Your task to perform on an android device: open app "Pandora - Music & Podcasts" Image 0: 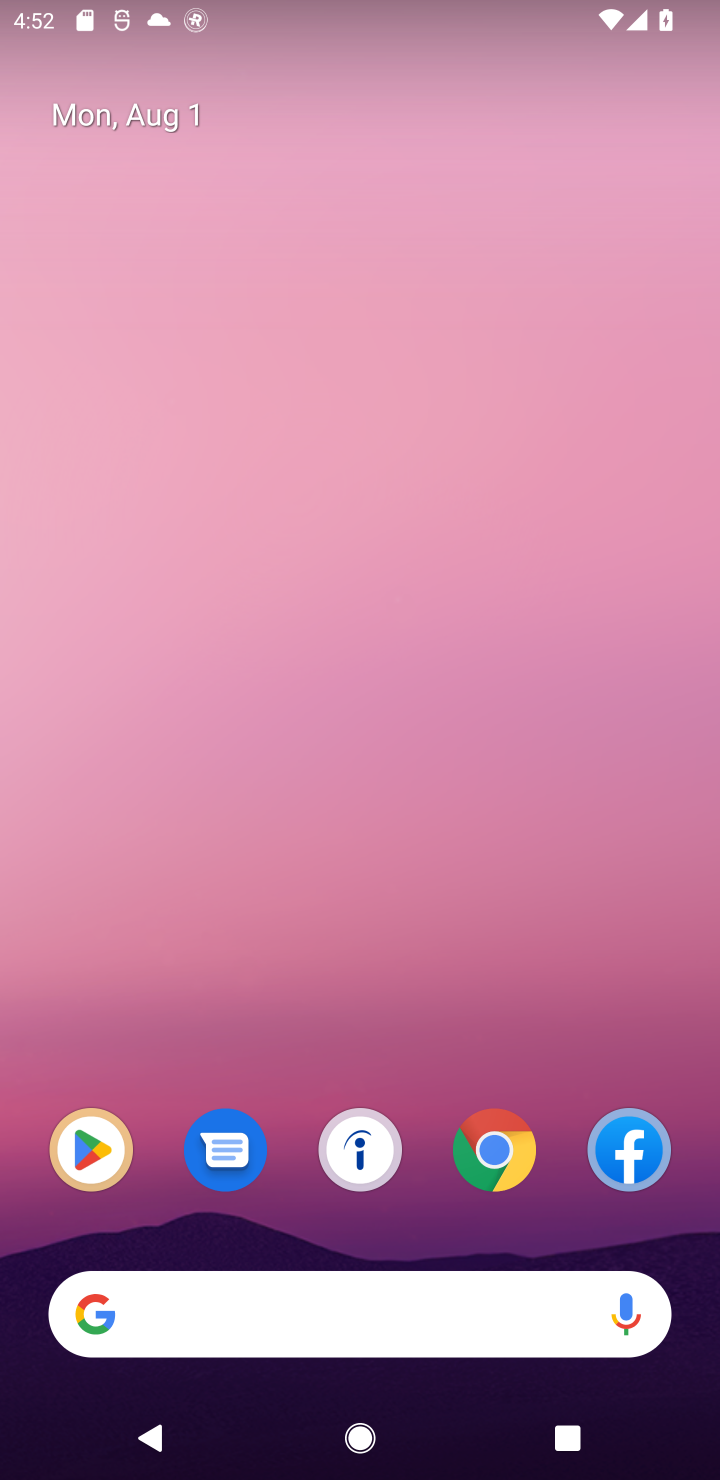
Step 0: press home button
Your task to perform on an android device: open app "Pandora - Music & Podcasts" Image 1: 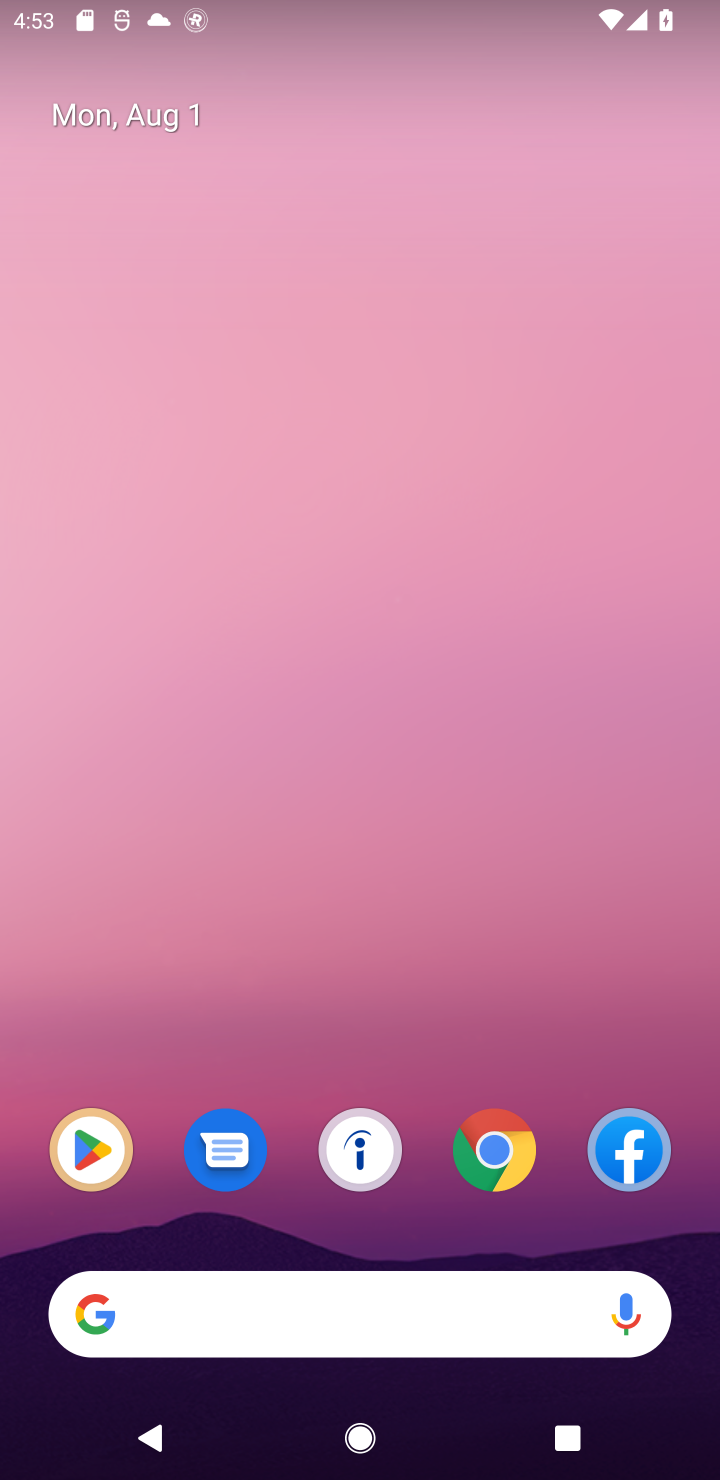
Step 1: drag from (284, 1249) to (266, 10)
Your task to perform on an android device: open app "Pandora - Music & Podcasts" Image 2: 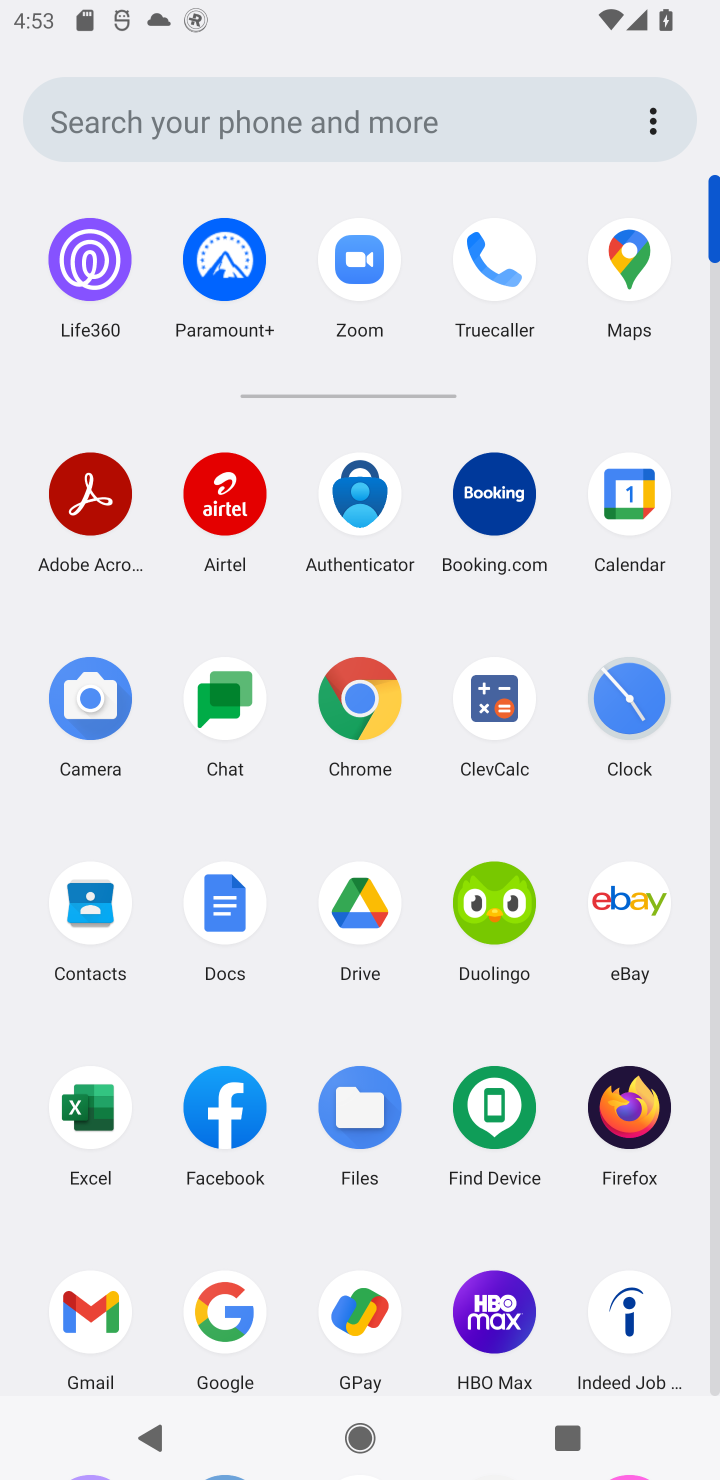
Step 2: click (337, 133)
Your task to perform on an android device: open app "Pandora - Music & Podcasts" Image 3: 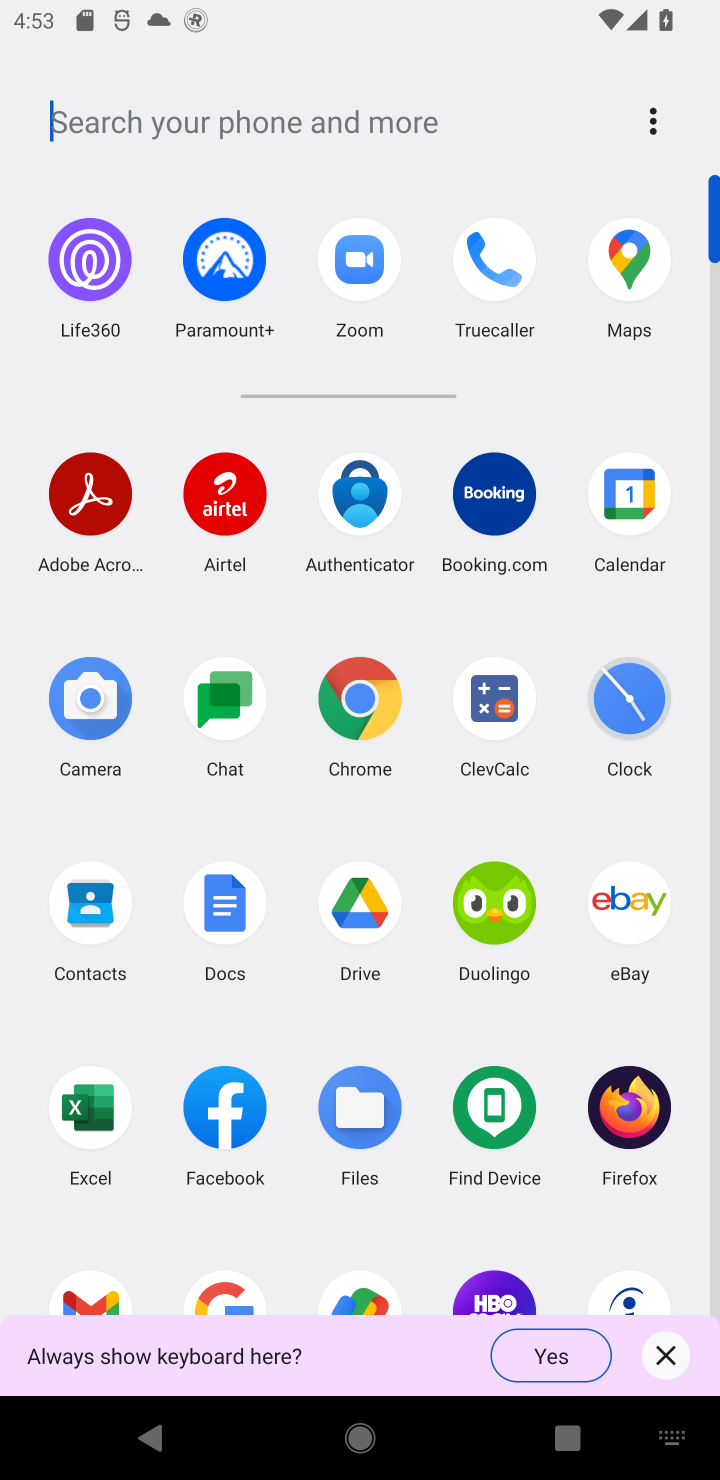
Step 3: type "pandora"
Your task to perform on an android device: open app "Pandora - Music & Podcasts" Image 4: 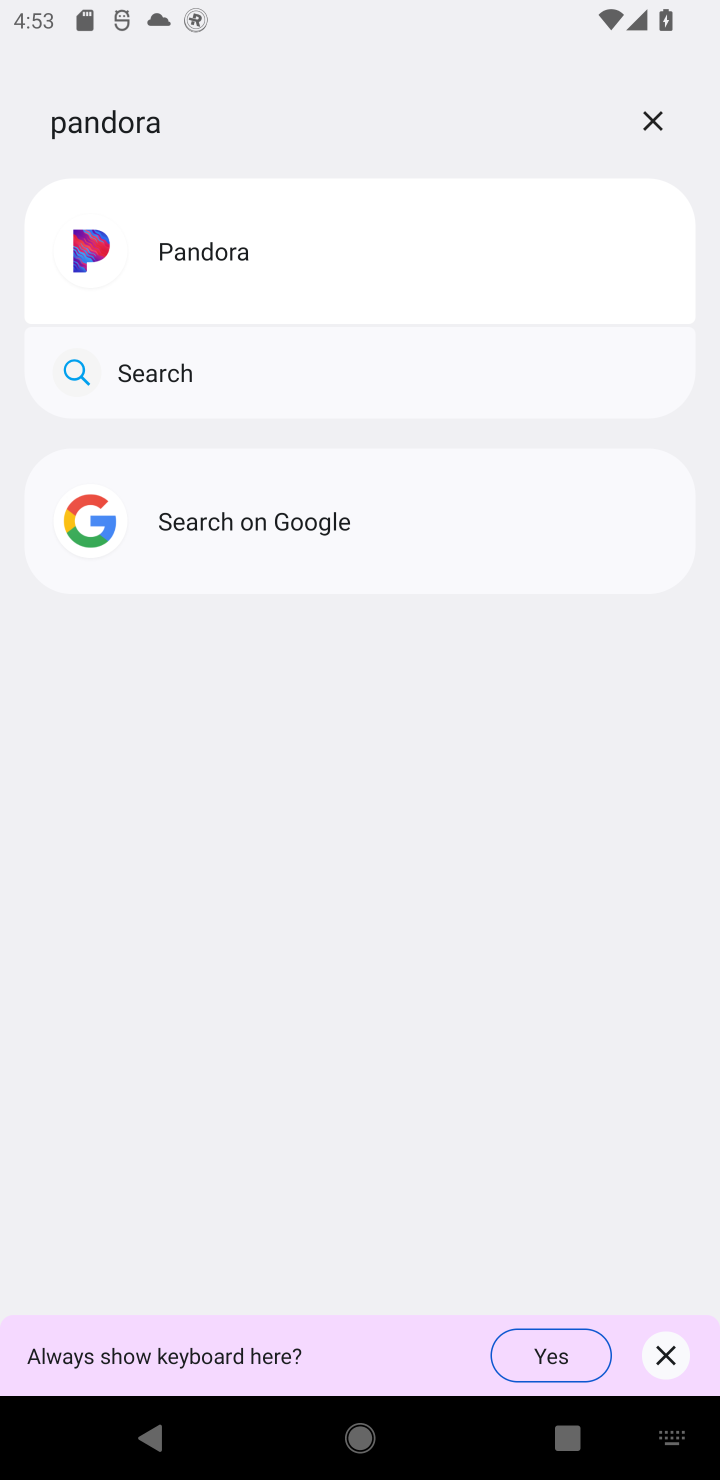
Step 4: click (169, 232)
Your task to perform on an android device: open app "Pandora - Music & Podcasts" Image 5: 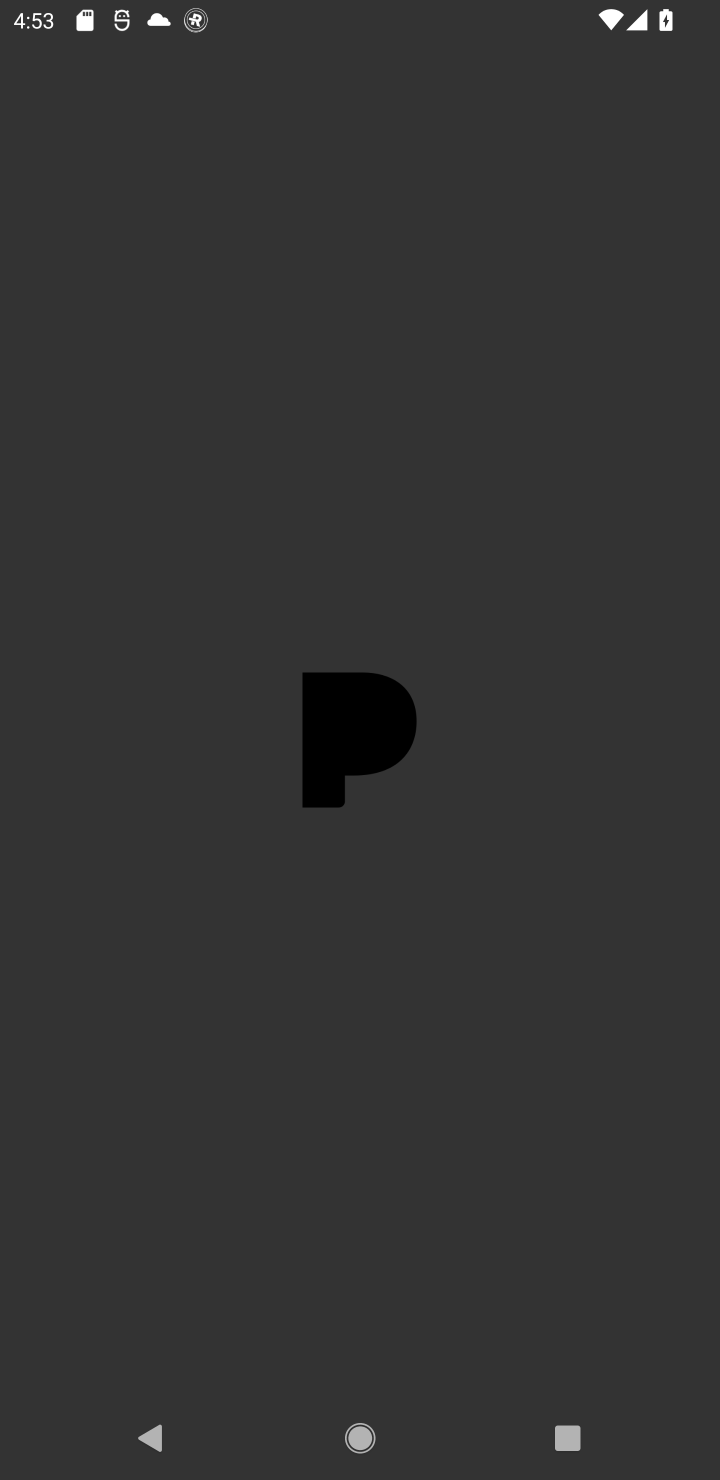
Step 5: task complete